Your task to perform on an android device: toggle notification dots Image 0: 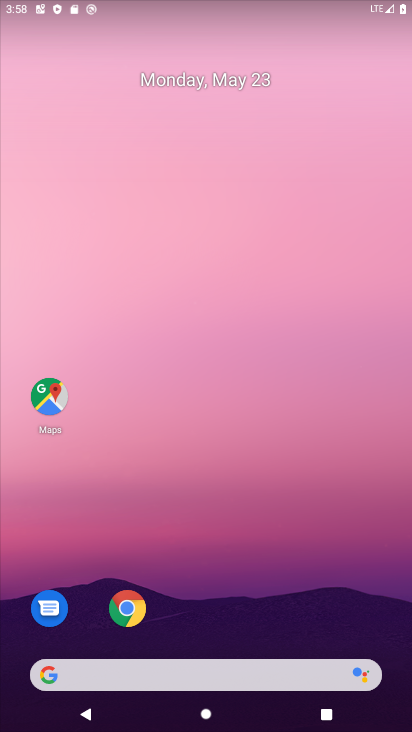
Step 0: drag from (250, 564) to (166, 151)
Your task to perform on an android device: toggle notification dots Image 1: 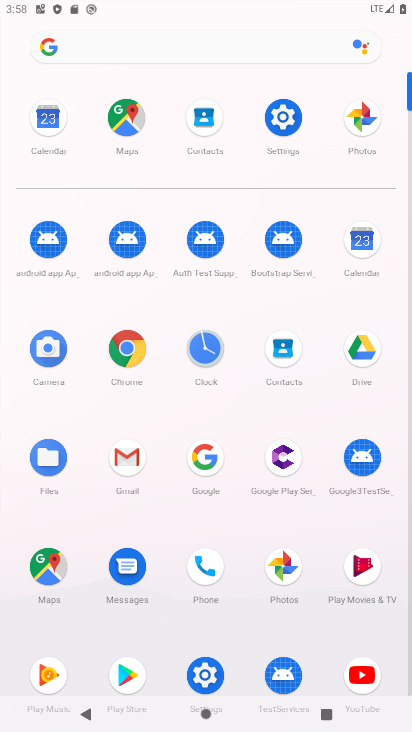
Step 1: click (204, 675)
Your task to perform on an android device: toggle notification dots Image 2: 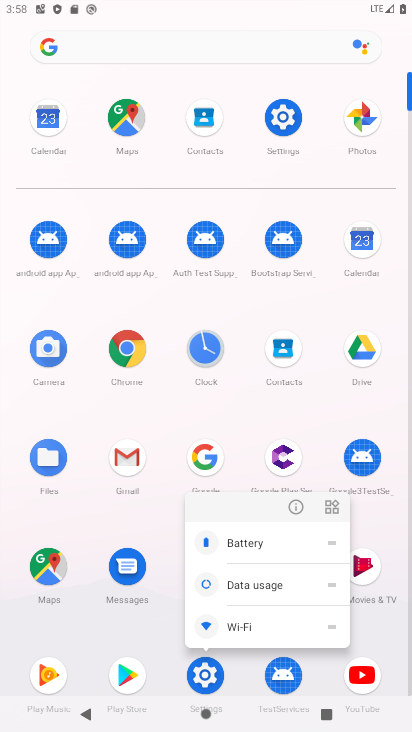
Step 2: click (204, 675)
Your task to perform on an android device: toggle notification dots Image 3: 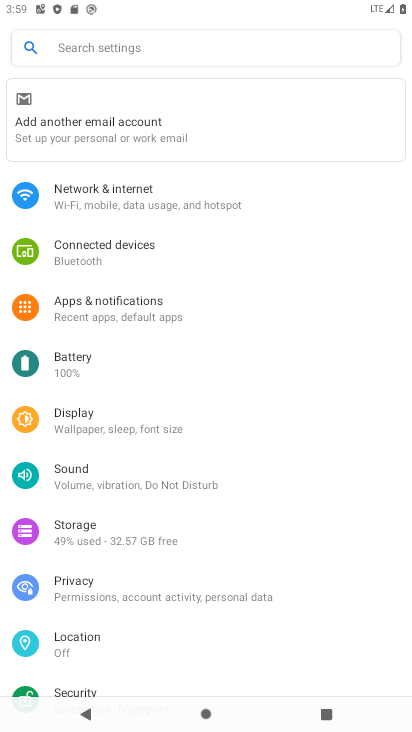
Step 3: click (117, 308)
Your task to perform on an android device: toggle notification dots Image 4: 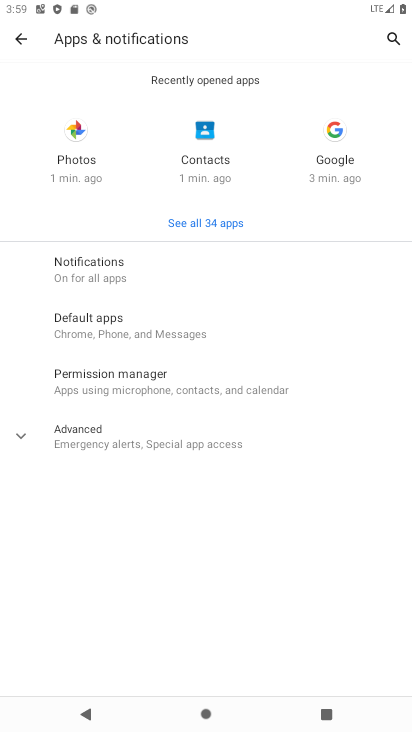
Step 4: click (91, 266)
Your task to perform on an android device: toggle notification dots Image 5: 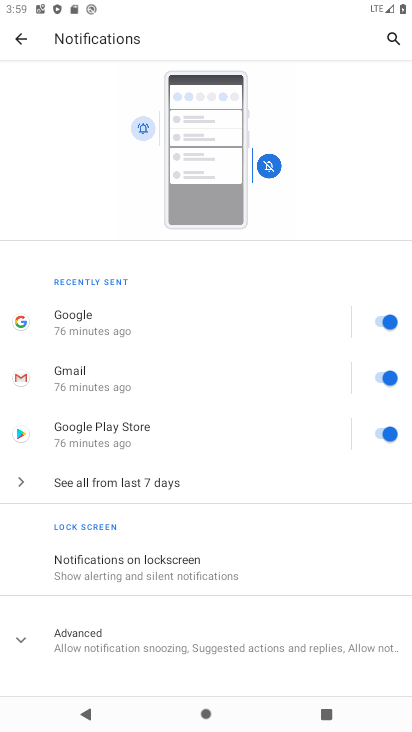
Step 5: drag from (147, 528) to (157, 409)
Your task to perform on an android device: toggle notification dots Image 6: 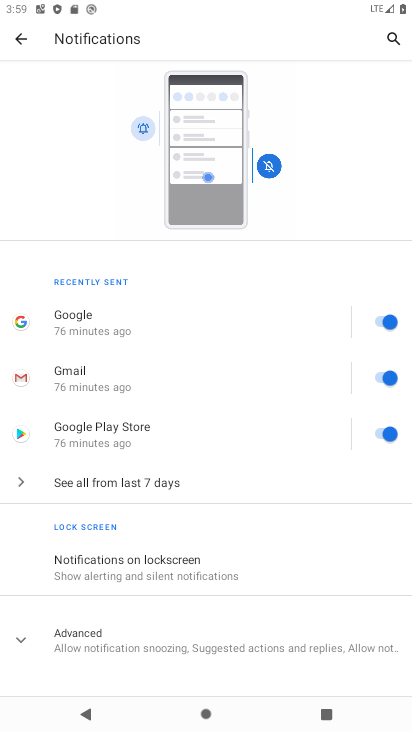
Step 6: click (176, 653)
Your task to perform on an android device: toggle notification dots Image 7: 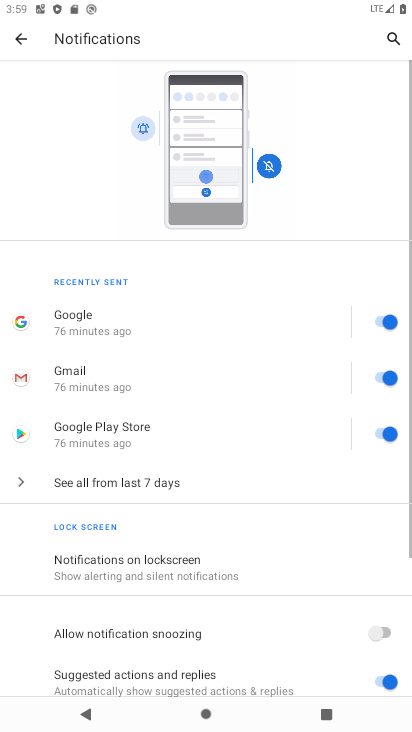
Step 7: drag from (176, 653) to (205, 561)
Your task to perform on an android device: toggle notification dots Image 8: 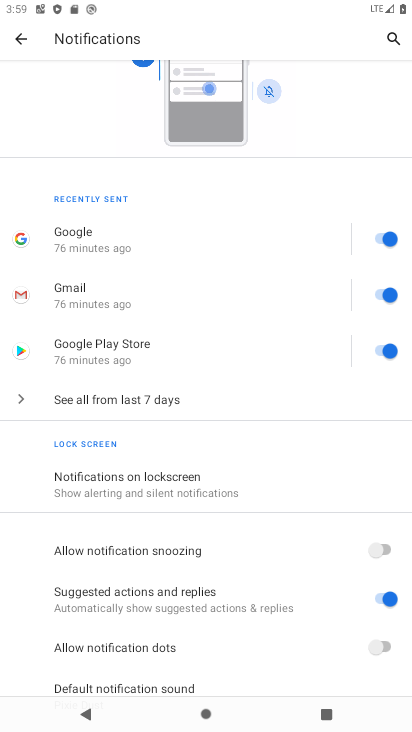
Step 8: drag from (185, 653) to (212, 563)
Your task to perform on an android device: toggle notification dots Image 9: 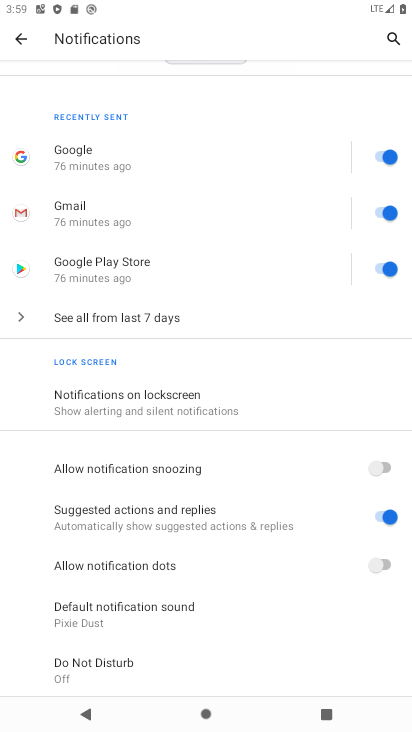
Step 9: click (372, 570)
Your task to perform on an android device: toggle notification dots Image 10: 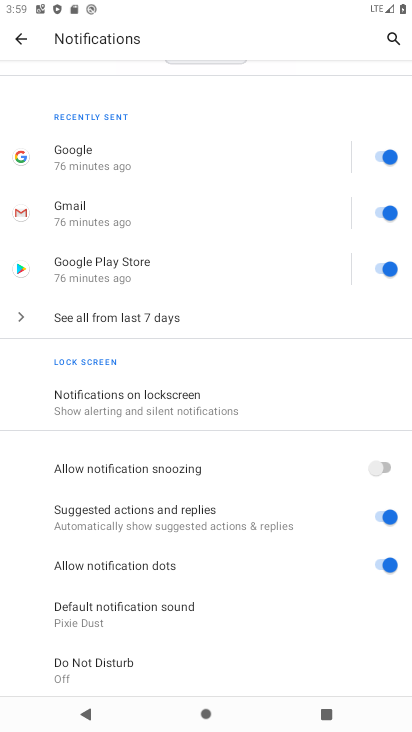
Step 10: task complete